Your task to perform on an android device: turn off sleep mode Image 0: 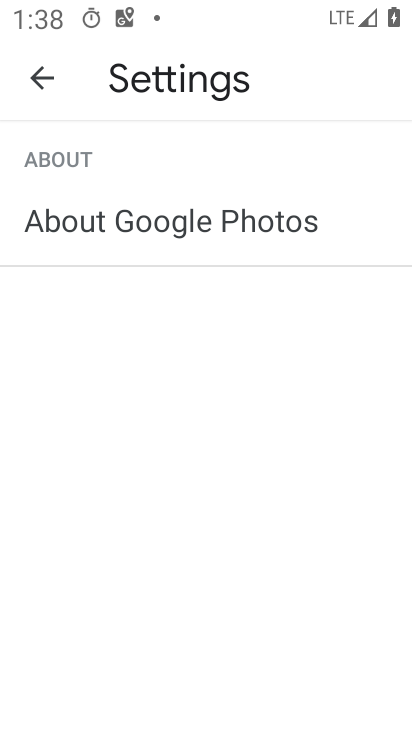
Step 0: press home button
Your task to perform on an android device: turn off sleep mode Image 1: 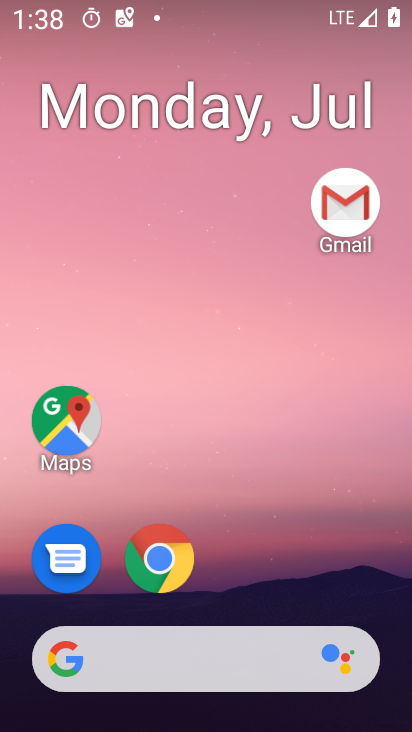
Step 1: drag from (324, 581) to (330, 170)
Your task to perform on an android device: turn off sleep mode Image 2: 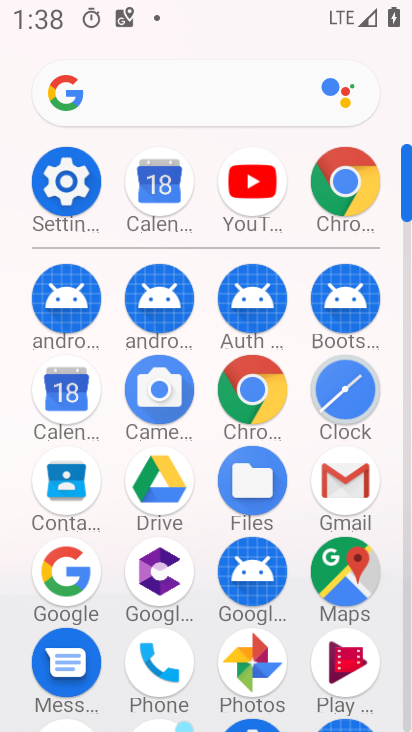
Step 2: click (76, 188)
Your task to perform on an android device: turn off sleep mode Image 3: 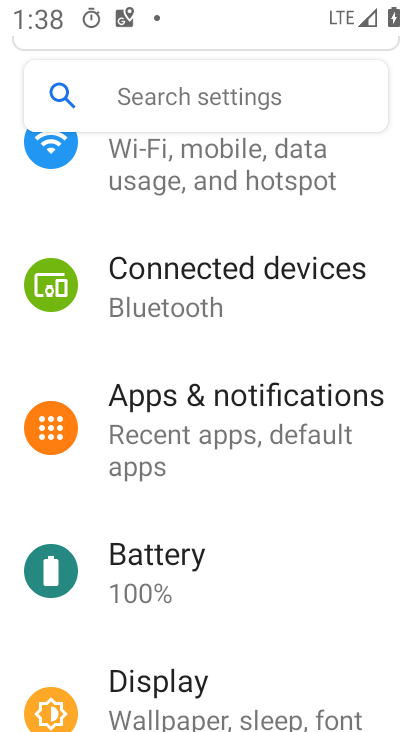
Step 3: drag from (357, 205) to (367, 355)
Your task to perform on an android device: turn off sleep mode Image 4: 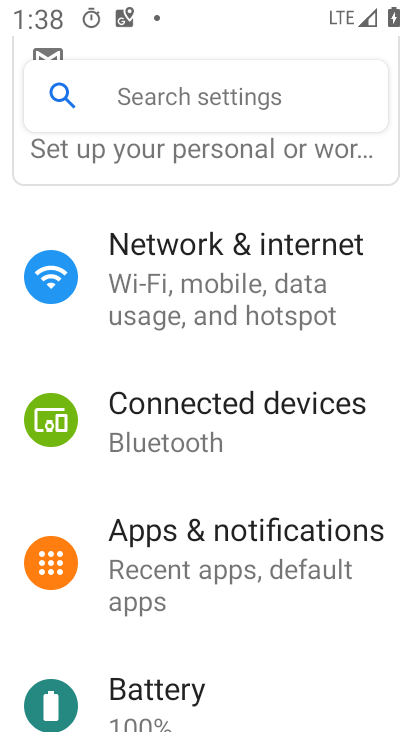
Step 4: drag from (380, 218) to (384, 362)
Your task to perform on an android device: turn off sleep mode Image 5: 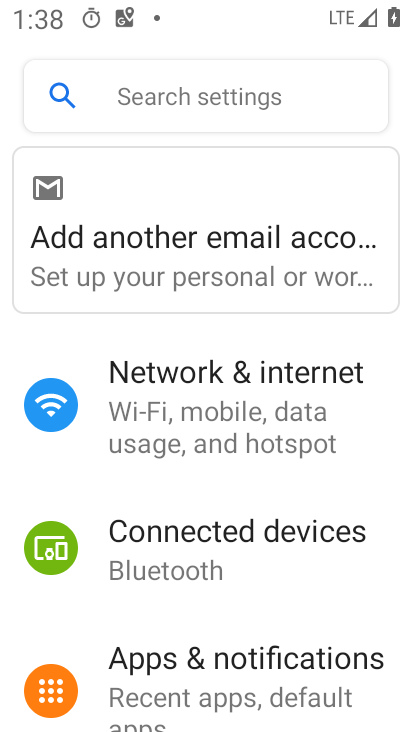
Step 5: drag from (360, 569) to (361, 465)
Your task to perform on an android device: turn off sleep mode Image 6: 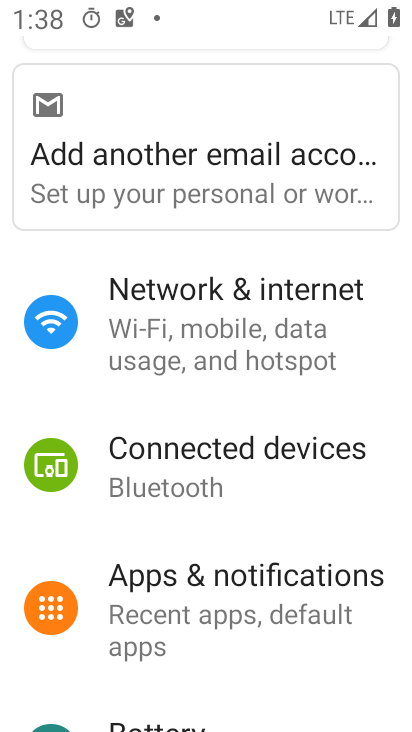
Step 6: drag from (339, 633) to (344, 503)
Your task to perform on an android device: turn off sleep mode Image 7: 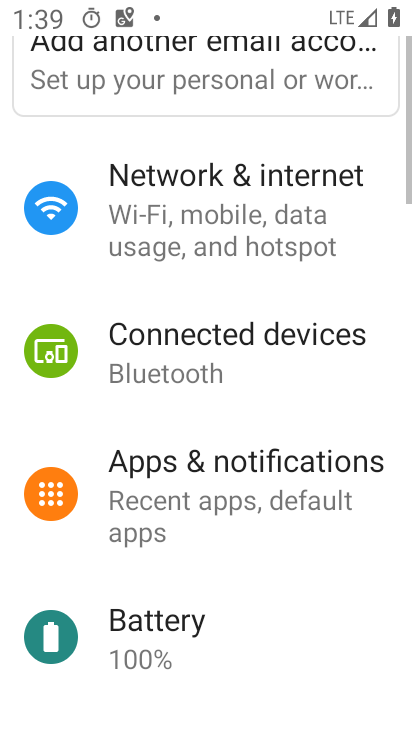
Step 7: drag from (336, 613) to (337, 496)
Your task to perform on an android device: turn off sleep mode Image 8: 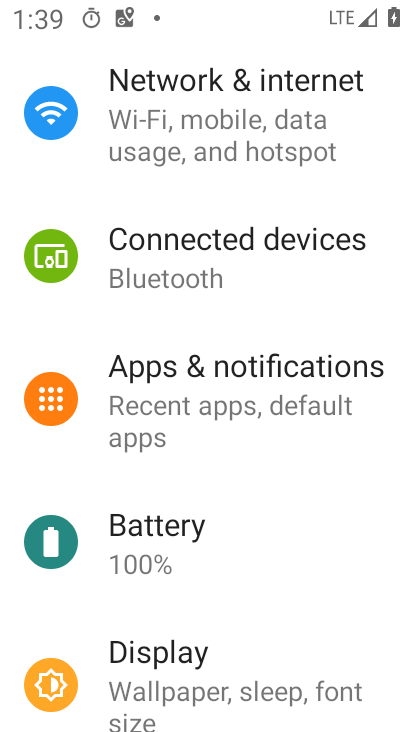
Step 8: drag from (330, 595) to (320, 450)
Your task to perform on an android device: turn off sleep mode Image 9: 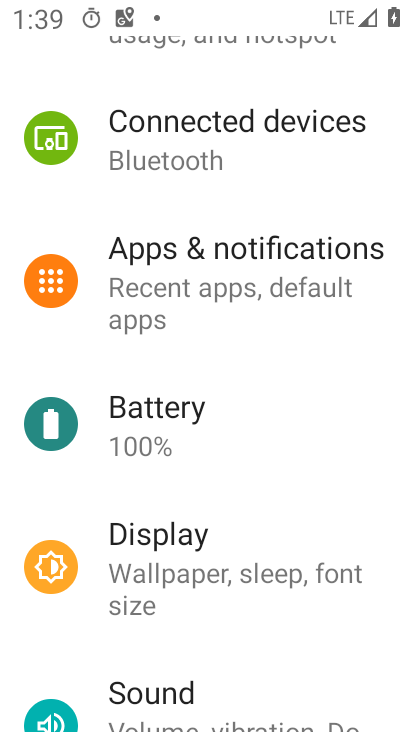
Step 9: drag from (311, 619) to (319, 443)
Your task to perform on an android device: turn off sleep mode Image 10: 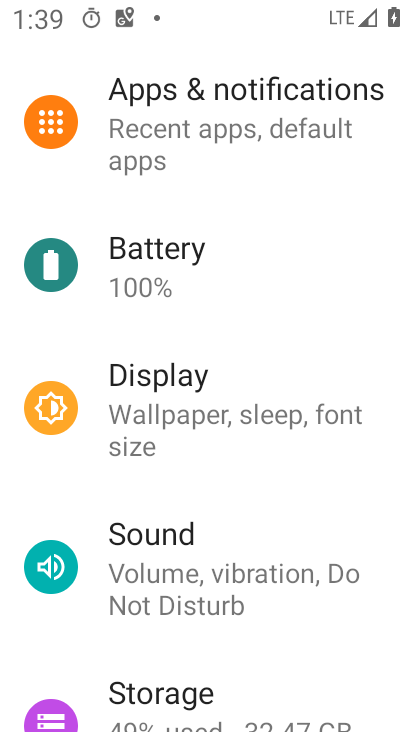
Step 10: drag from (323, 542) to (334, 375)
Your task to perform on an android device: turn off sleep mode Image 11: 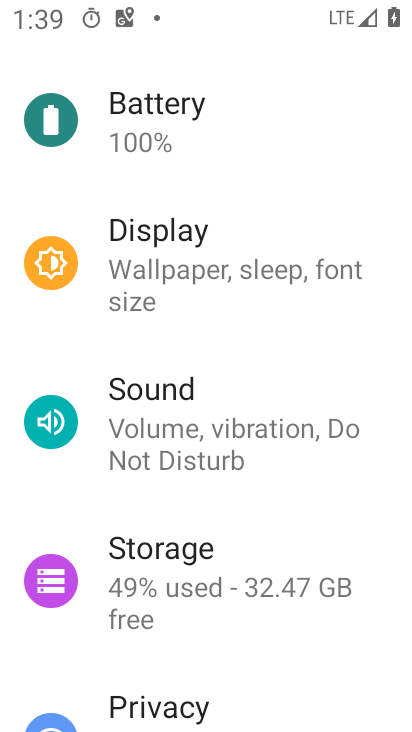
Step 11: click (269, 290)
Your task to perform on an android device: turn off sleep mode Image 12: 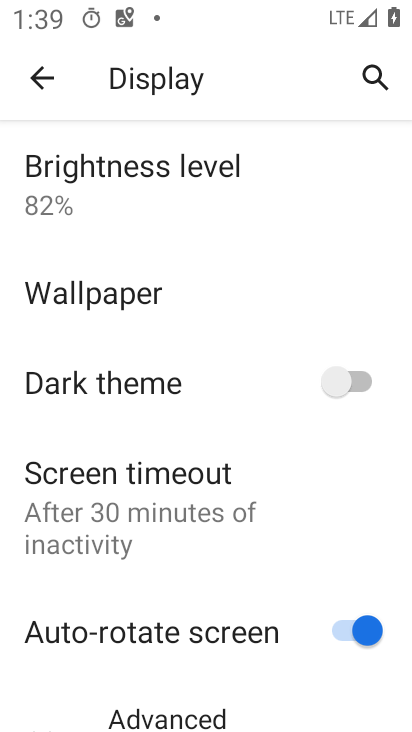
Step 12: drag from (265, 553) to (267, 385)
Your task to perform on an android device: turn off sleep mode Image 13: 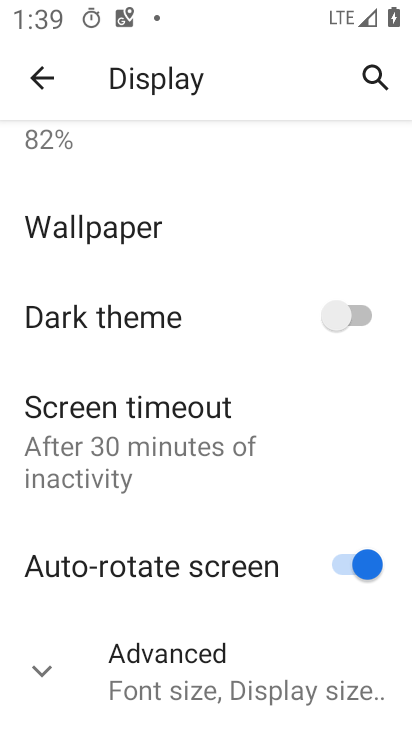
Step 13: click (236, 665)
Your task to perform on an android device: turn off sleep mode Image 14: 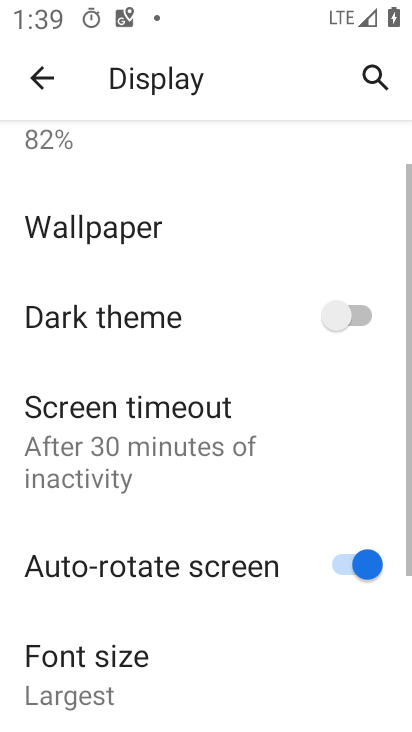
Step 14: task complete